Your task to perform on an android device: stop showing notifications on the lock screen Image 0: 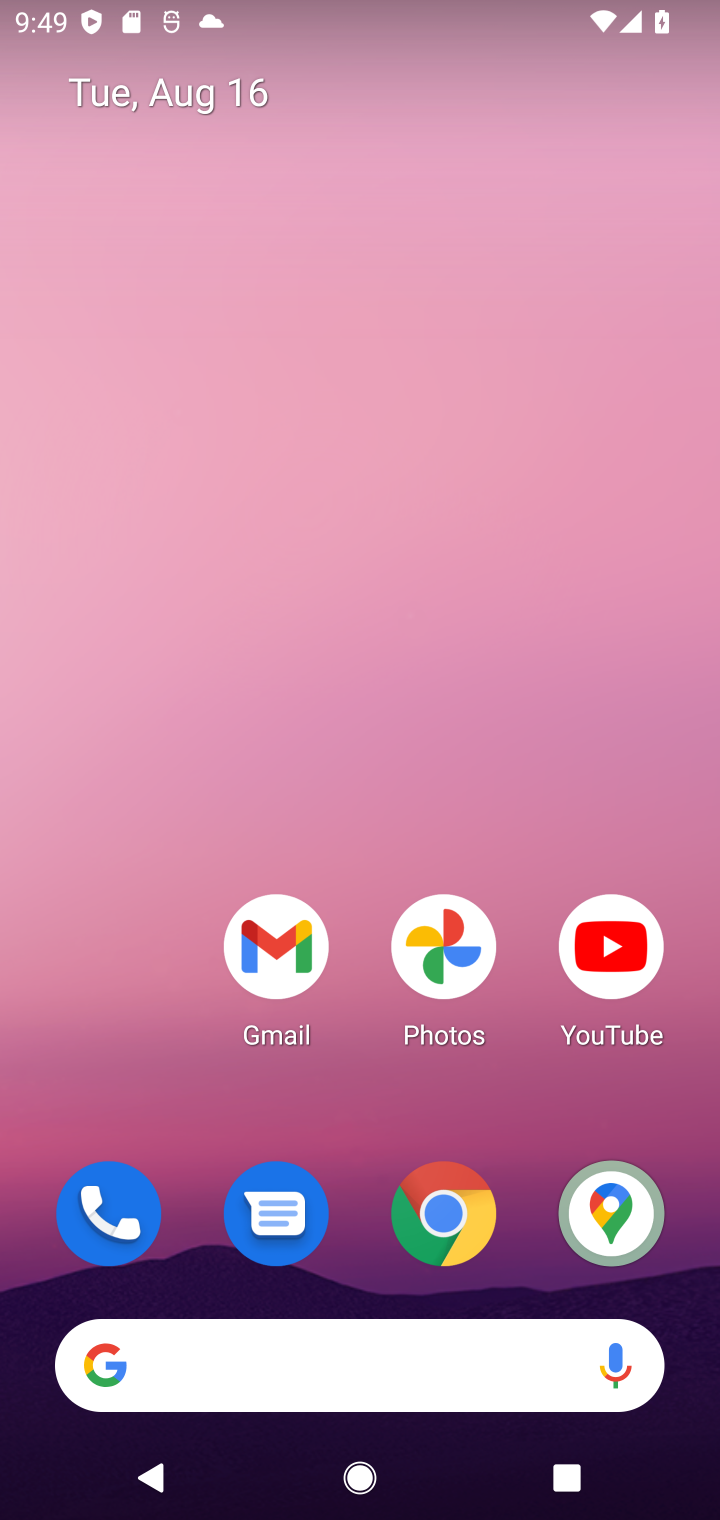
Step 0: drag from (206, 953) to (240, 367)
Your task to perform on an android device: stop showing notifications on the lock screen Image 1: 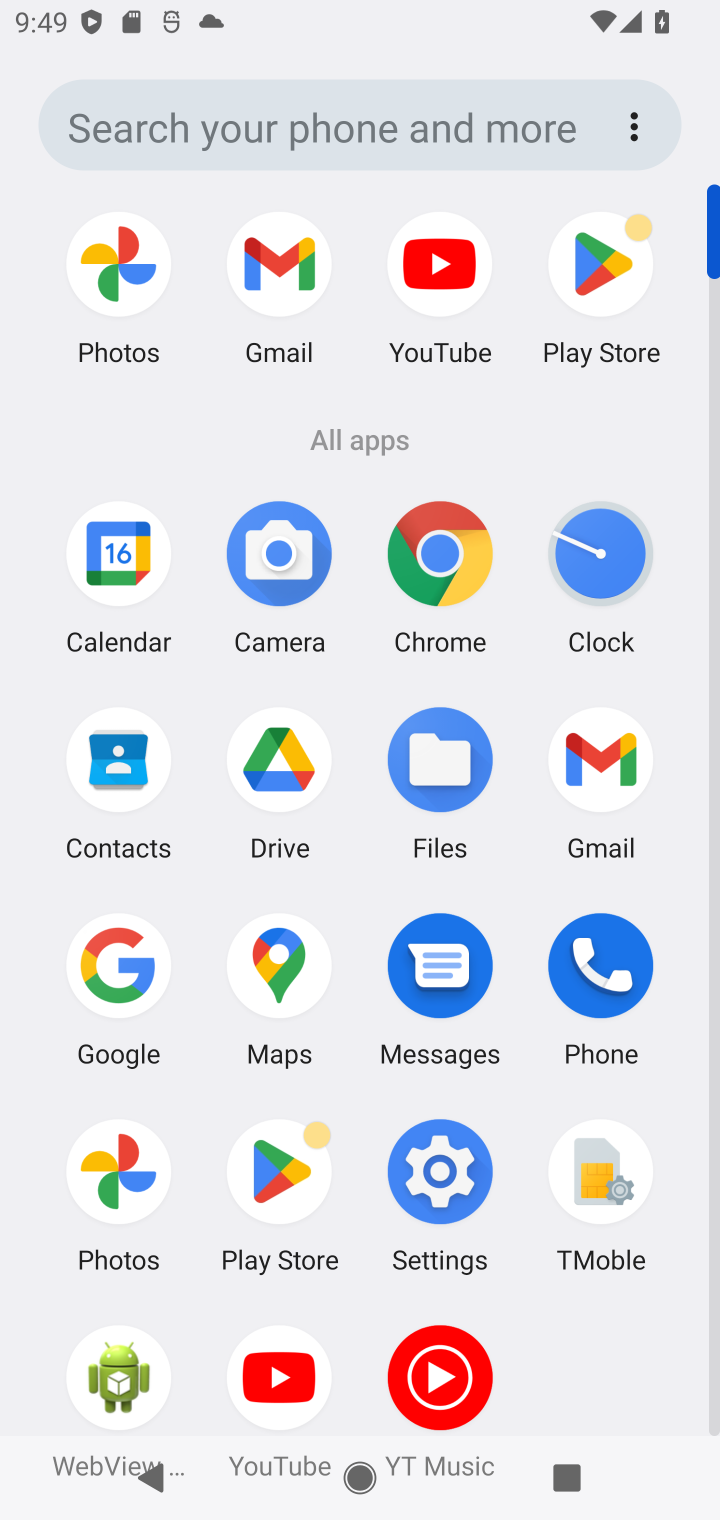
Step 1: click (418, 1157)
Your task to perform on an android device: stop showing notifications on the lock screen Image 2: 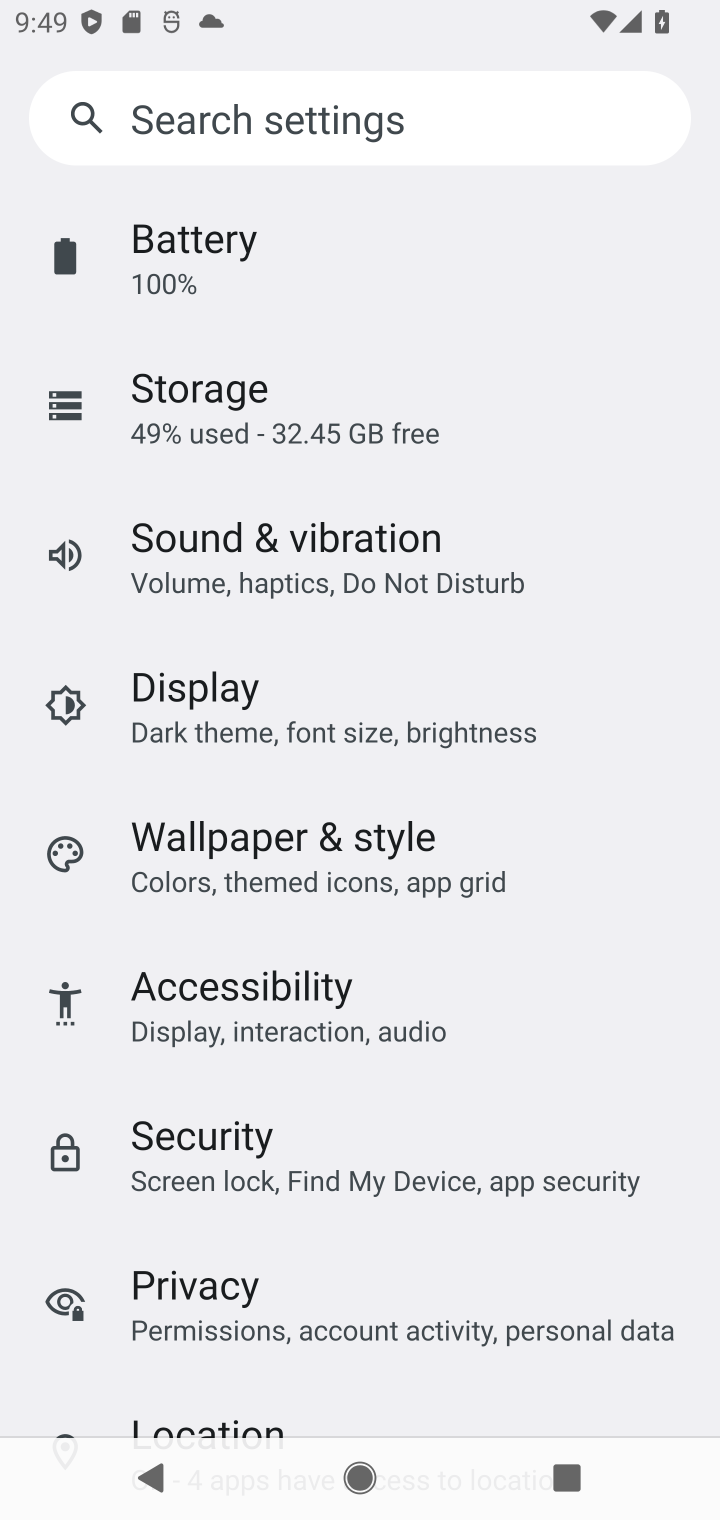
Step 2: drag from (219, 349) to (249, 1083)
Your task to perform on an android device: stop showing notifications on the lock screen Image 3: 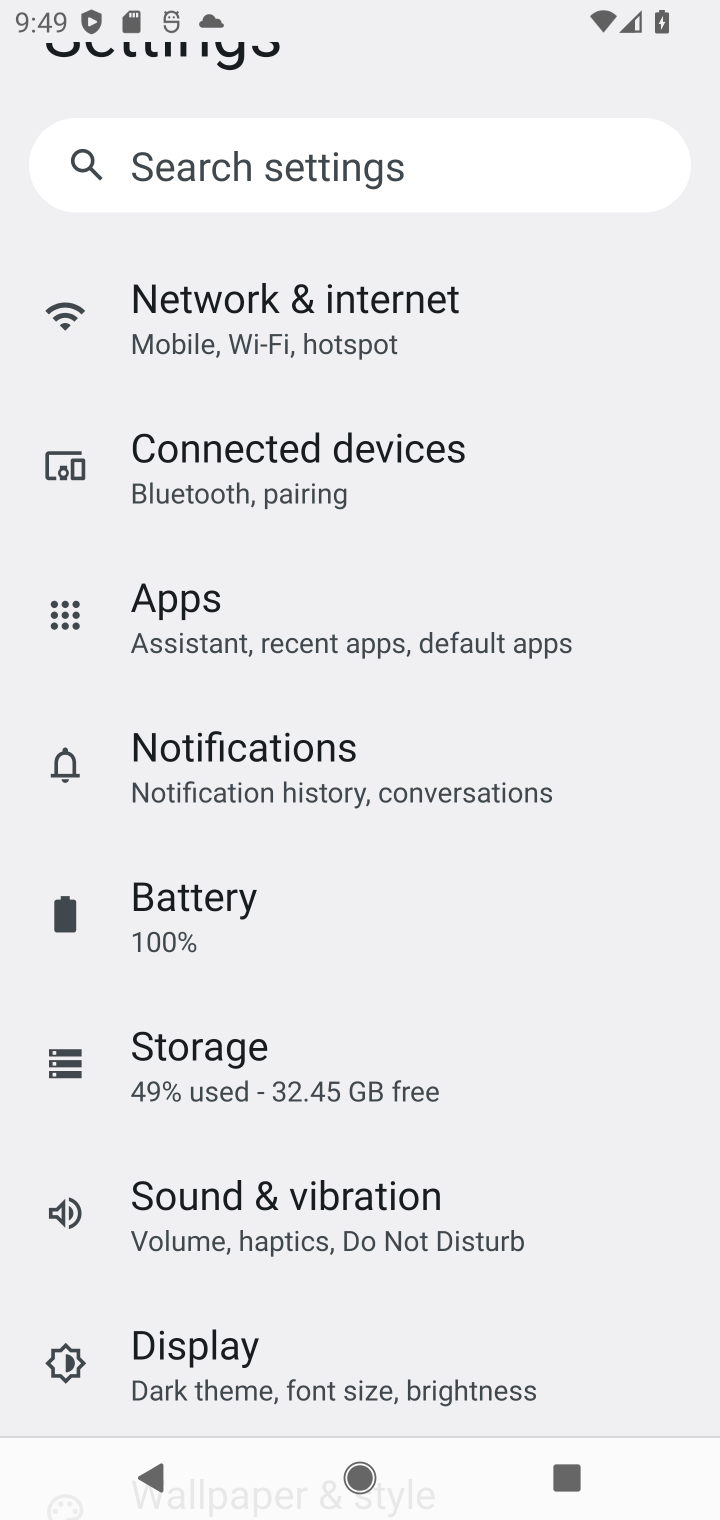
Step 3: click (253, 765)
Your task to perform on an android device: stop showing notifications on the lock screen Image 4: 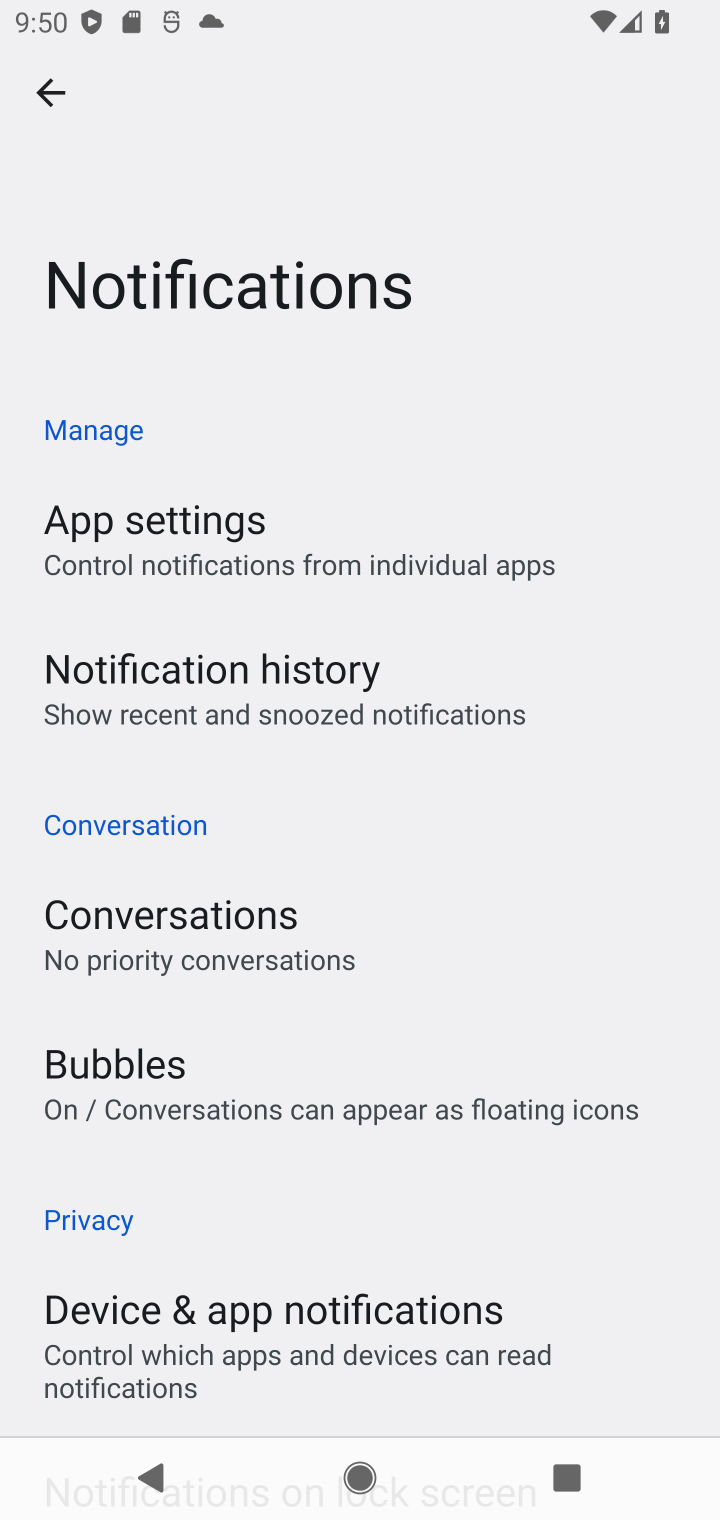
Step 4: drag from (339, 1292) to (393, 527)
Your task to perform on an android device: stop showing notifications on the lock screen Image 5: 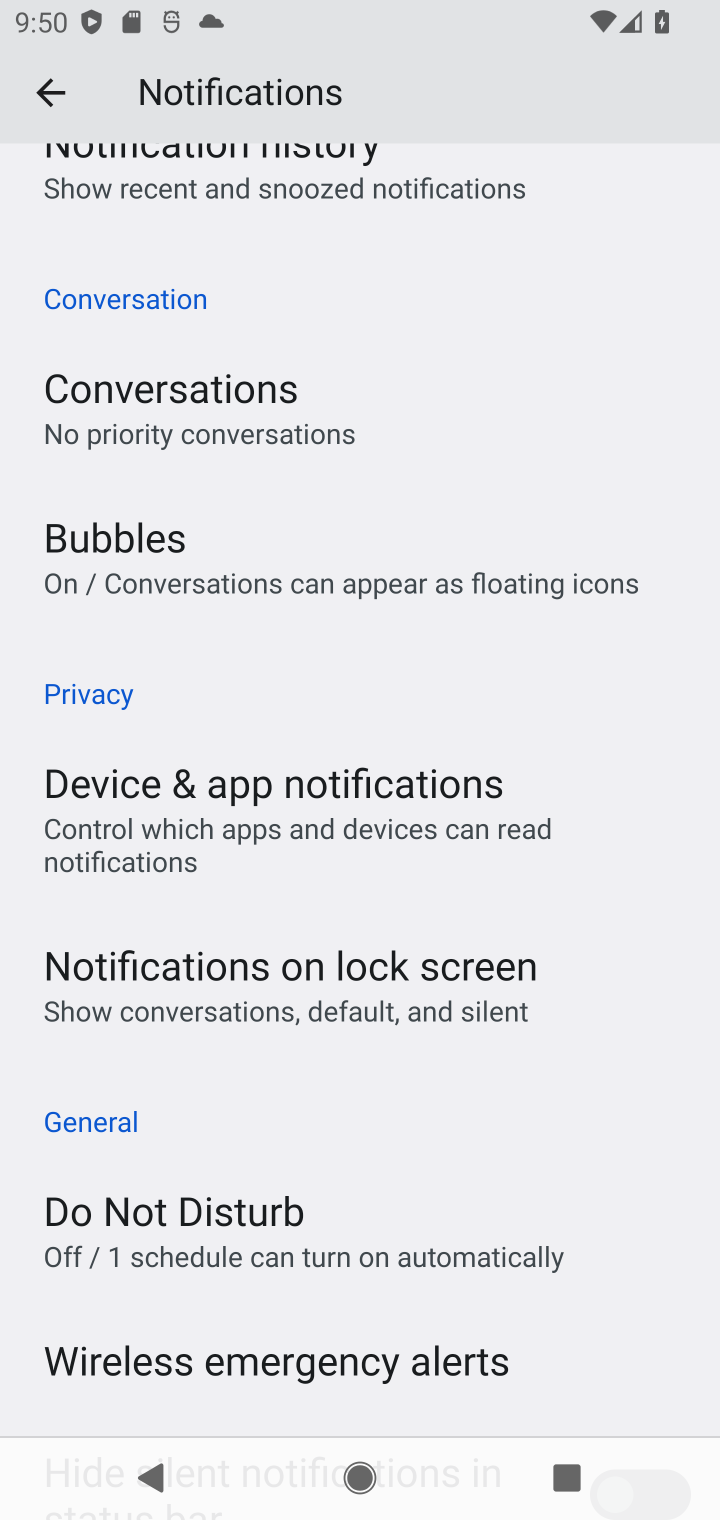
Step 5: click (254, 1274)
Your task to perform on an android device: stop showing notifications on the lock screen Image 6: 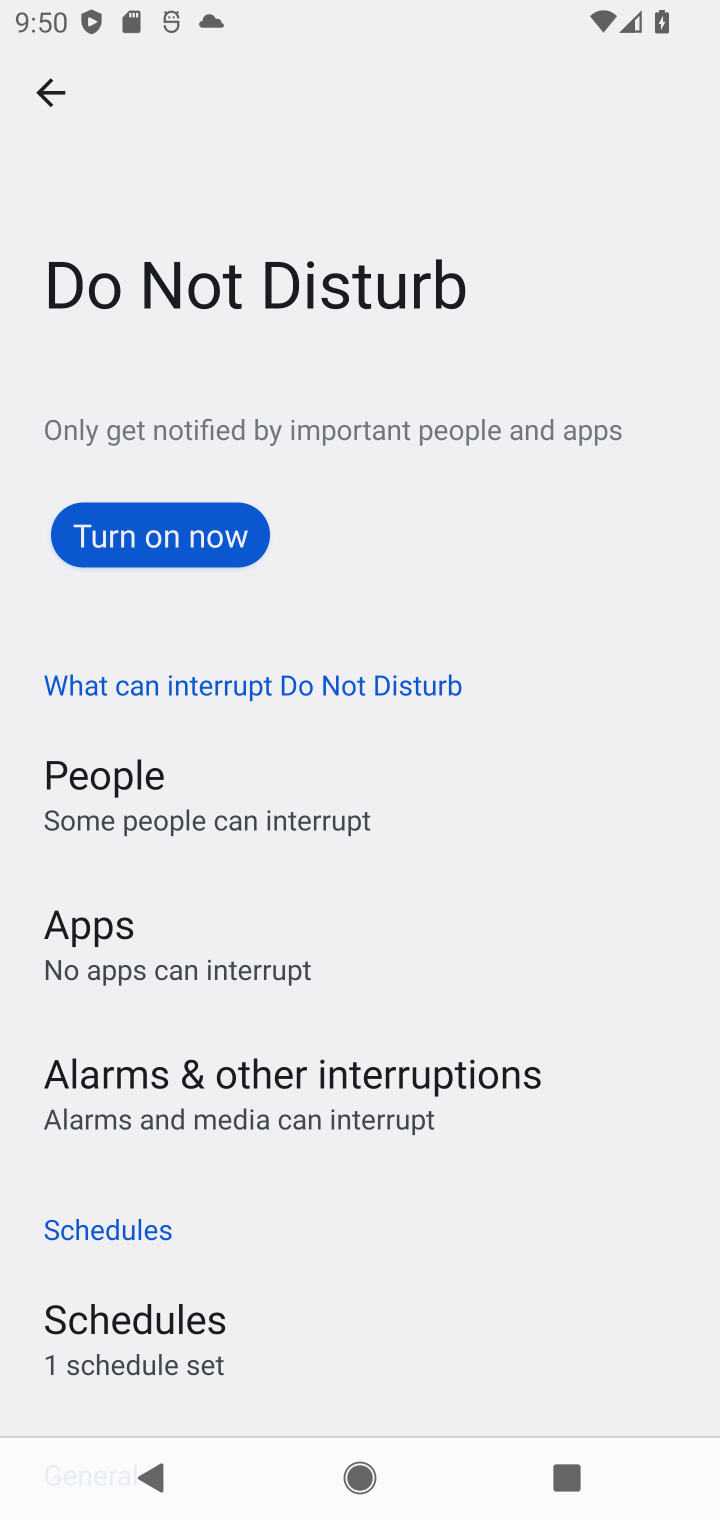
Step 6: click (56, 70)
Your task to perform on an android device: stop showing notifications on the lock screen Image 7: 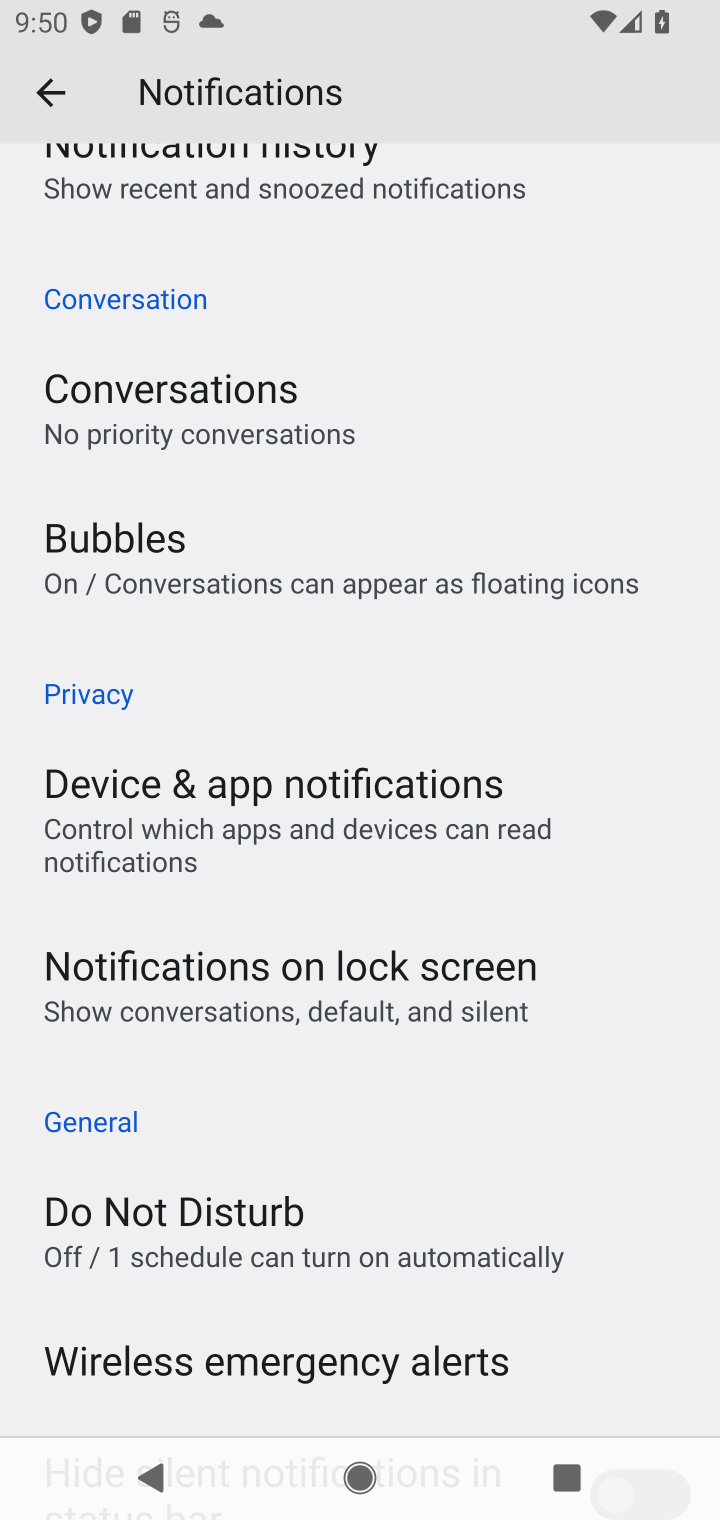
Step 7: click (290, 995)
Your task to perform on an android device: stop showing notifications on the lock screen Image 8: 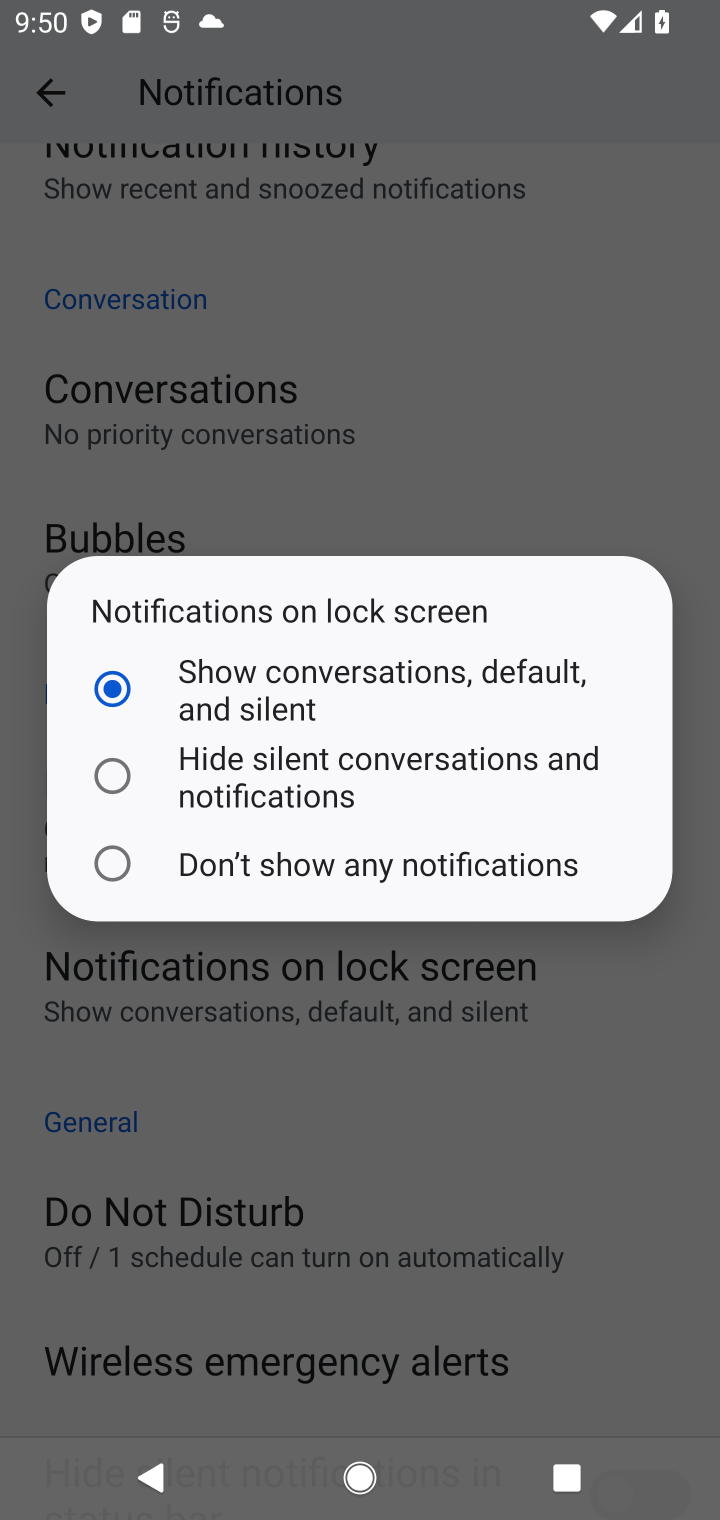
Step 8: click (206, 869)
Your task to perform on an android device: stop showing notifications on the lock screen Image 9: 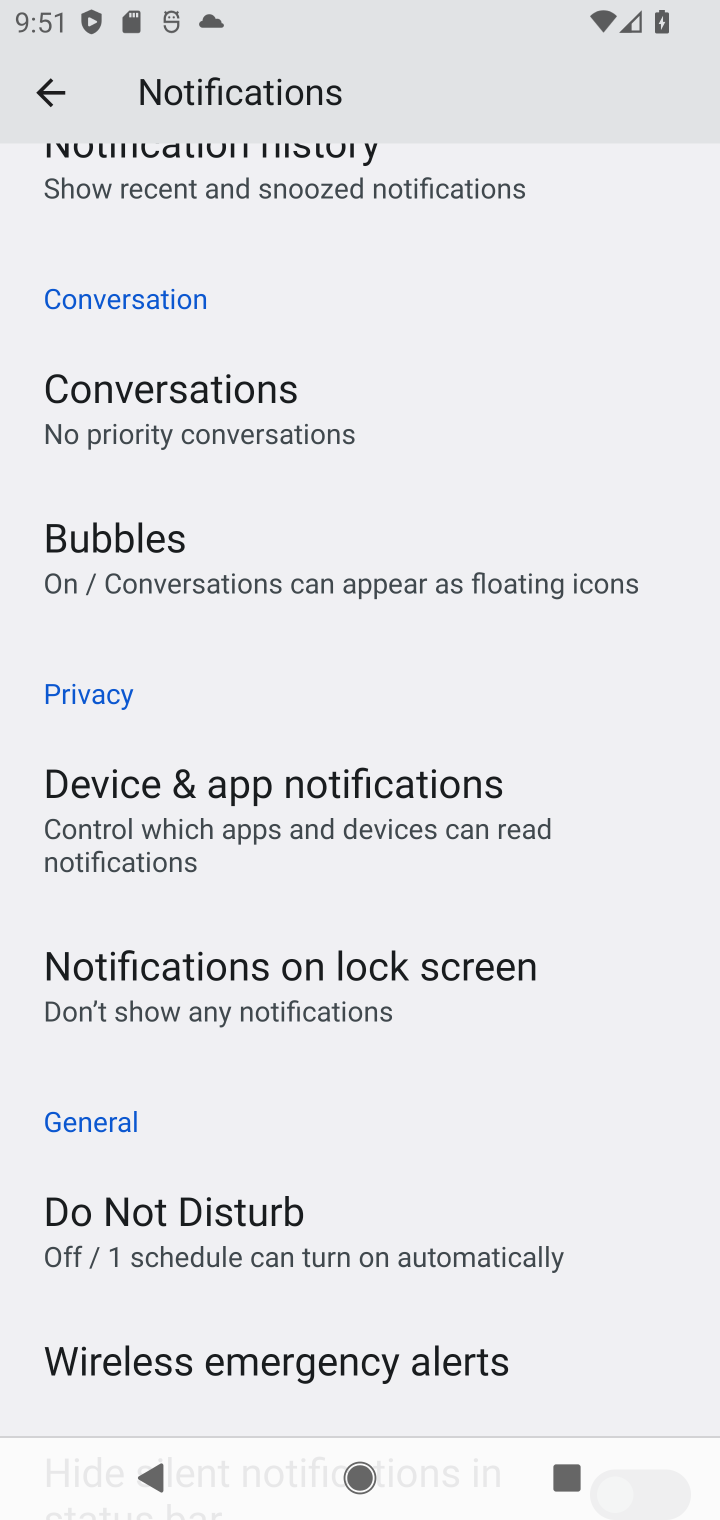
Step 9: task complete